Your task to perform on an android device: Search for Mexican restaurants on Maps Image 0: 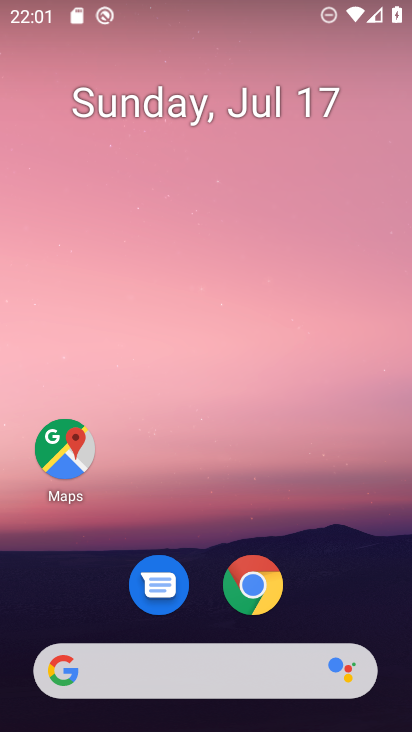
Step 0: click (63, 461)
Your task to perform on an android device: Search for Mexican restaurants on Maps Image 1: 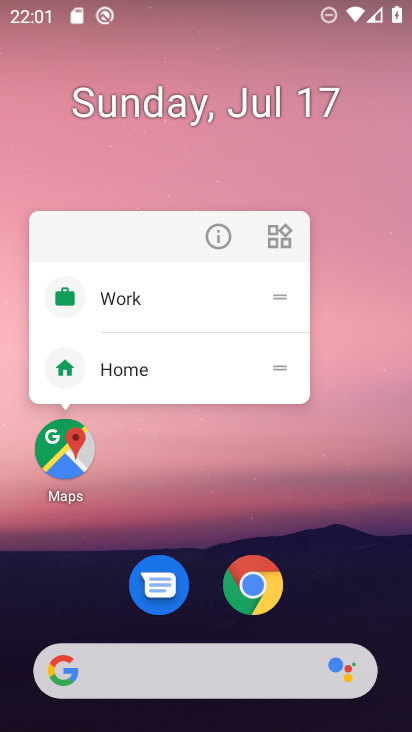
Step 1: click (61, 463)
Your task to perform on an android device: Search for Mexican restaurants on Maps Image 2: 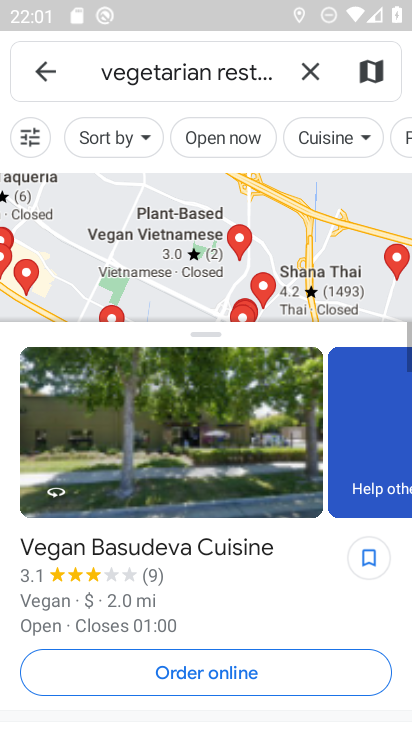
Step 2: click (309, 73)
Your task to perform on an android device: Search for Mexican restaurants on Maps Image 3: 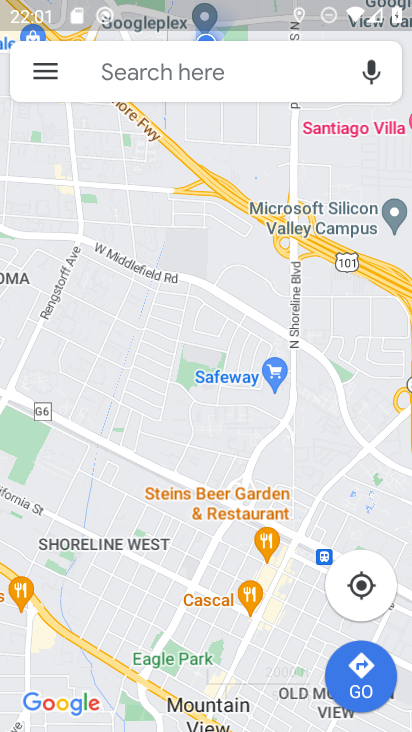
Step 3: click (141, 76)
Your task to perform on an android device: Search for Mexican restaurants on Maps Image 4: 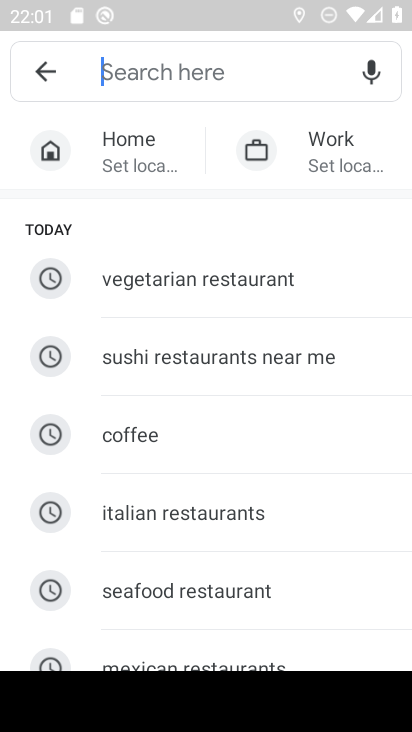
Step 4: drag from (295, 621) to (359, 311)
Your task to perform on an android device: Search for Mexican restaurants on Maps Image 5: 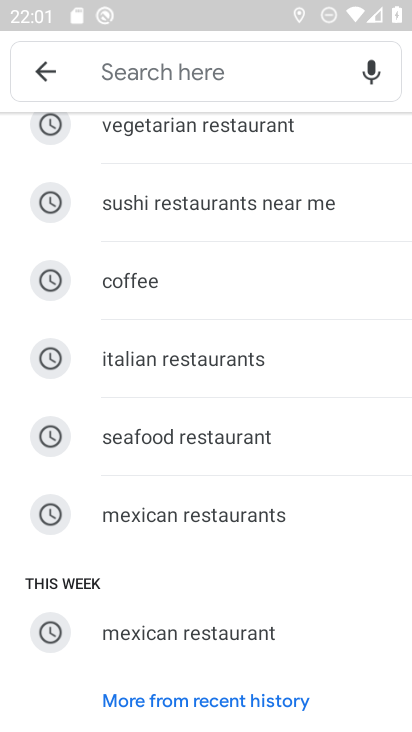
Step 5: click (226, 518)
Your task to perform on an android device: Search for Mexican restaurants on Maps Image 6: 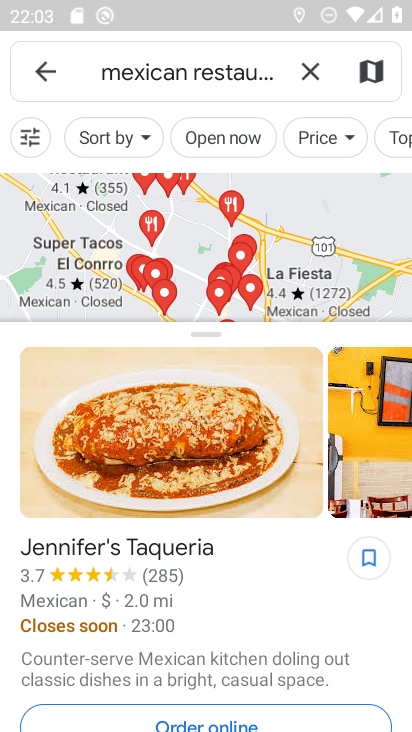
Step 6: task complete